Your task to perform on an android device: show emergency info Image 0: 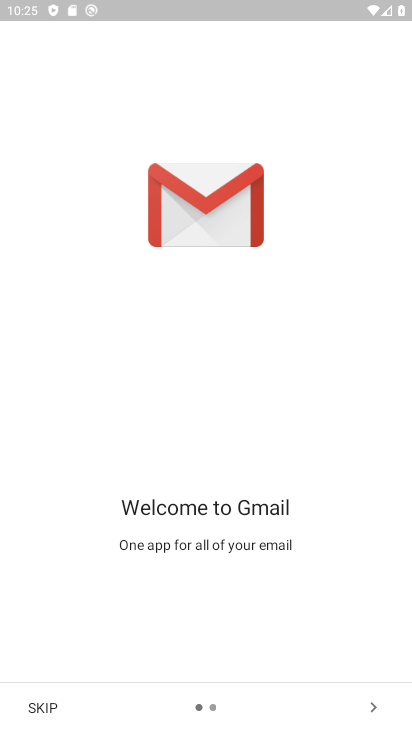
Step 0: press home button
Your task to perform on an android device: show emergency info Image 1: 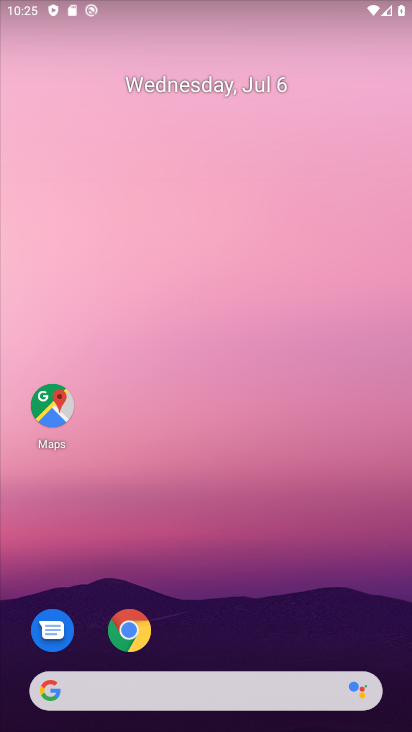
Step 1: drag from (187, 670) to (230, 242)
Your task to perform on an android device: show emergency info Image 2: 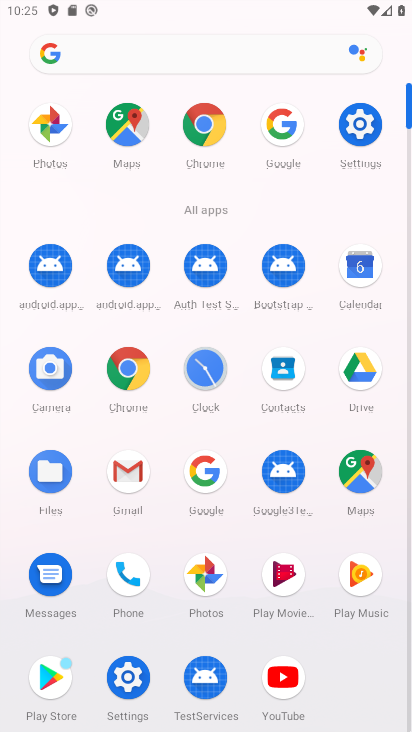
Step 2: click (353, 137)
Your task to perform on an android device: show emergency info Image 3: 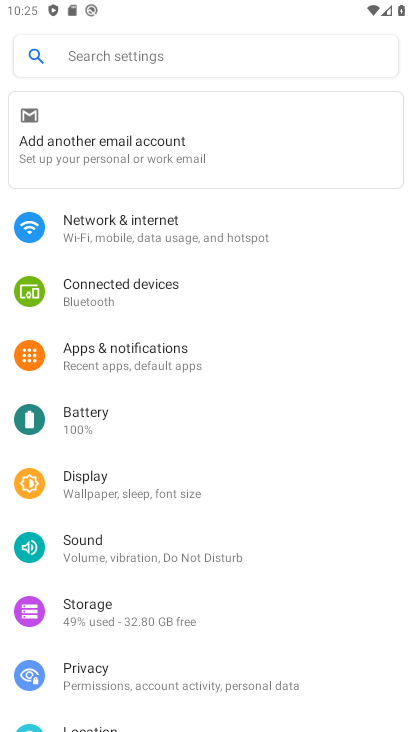
Step 3: drag from (116, 717) to (213, 235)
Your task to perform on an android device: show emergency info Image 4: 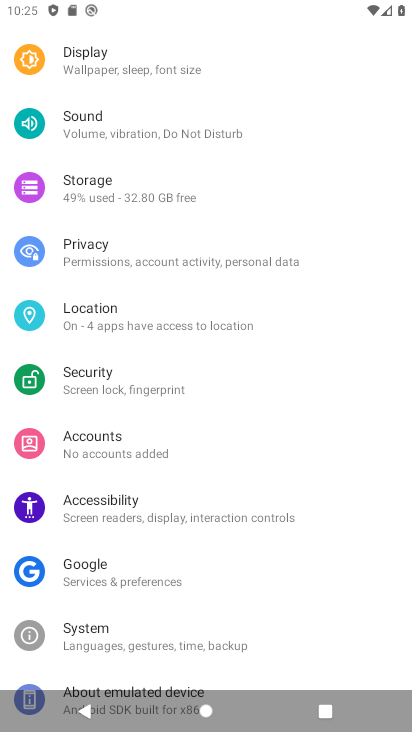
Step 4: drag from (153, 659) to (222, 210)
Your task to perform on an android device: show emergency info Image 5: 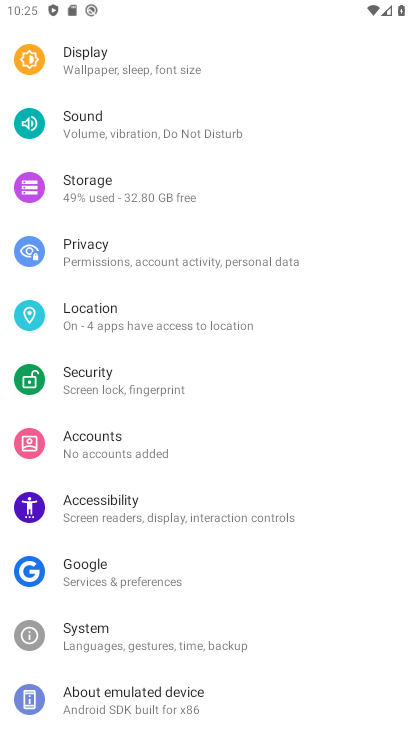
Step 5: click (143, 714)
Your task to perform on an android device: show emergency info Image 6: 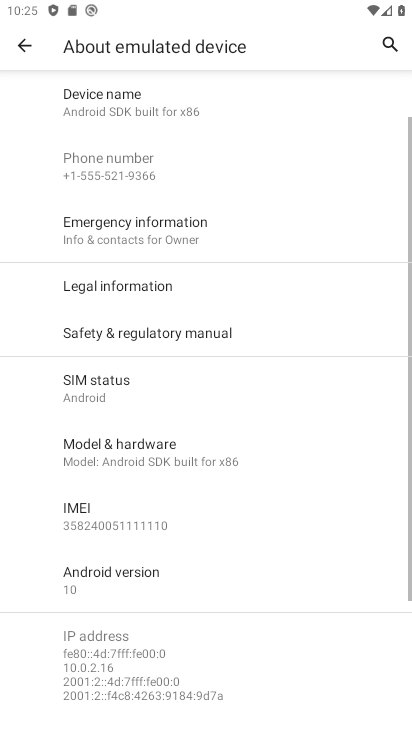
Step 6: click (98, 230)
Your task to perform on an android device: show emergency info Image 7: 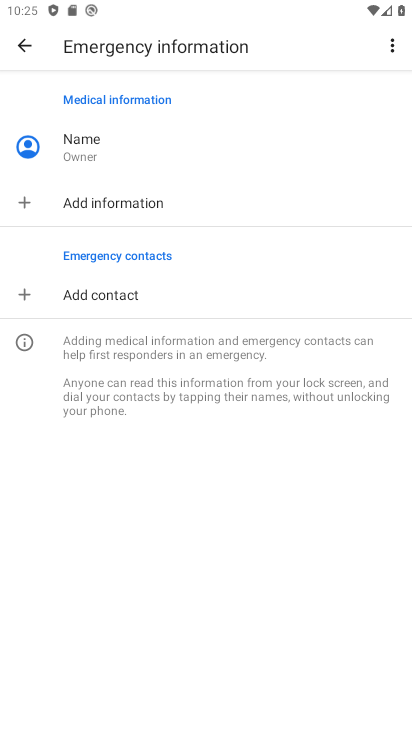
Step 7: task complete